Your task to perform on an android device: change notifications settings Image 0: 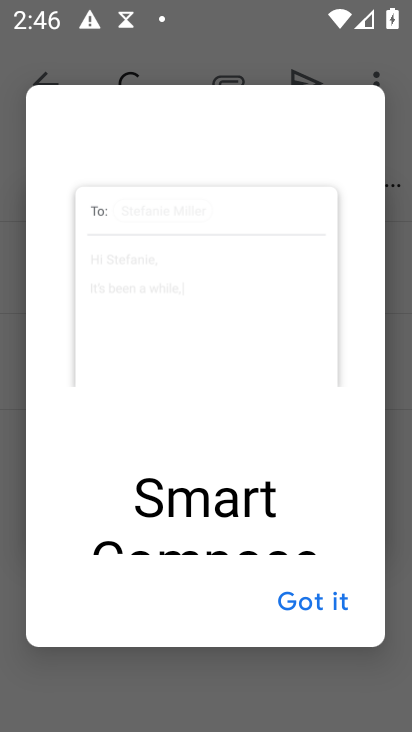
Step 0: press home button
Your task to perform on an android device: change notifications settings Image 1: 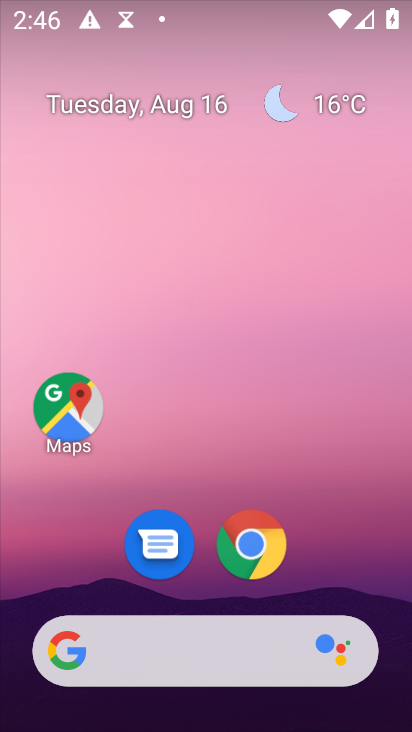
Step 1: drag from (191, 661) to (223, 95)
Your task to perform on an android device: change notifications settings Image 2: 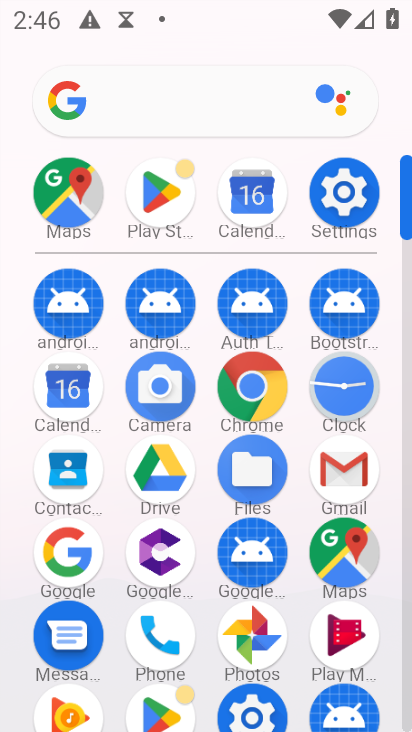
Step 2: click (342, 192)
Your task to perform on an android device: change notifications settings Image 3: 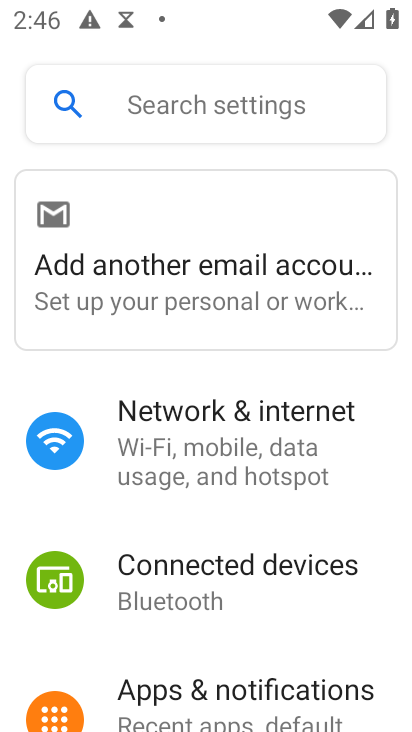
Step 3: drag from (188, 651) to (271, 481)
Your task to perform on an android device: change notifications settings Image 4: 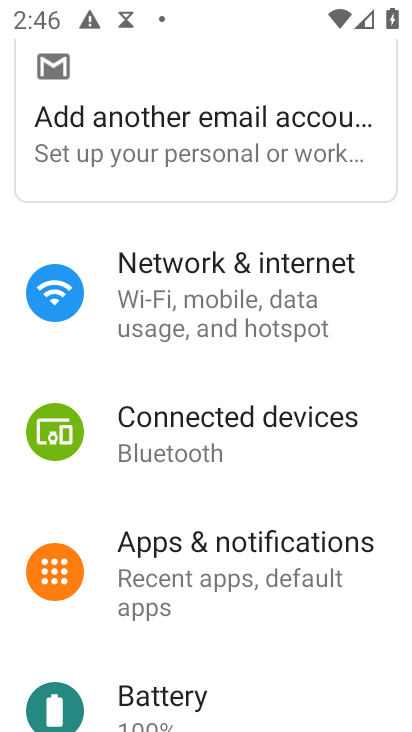
Step 4: click (255, 545)
Your task to perform on an android device: change notifications settings Image 5: 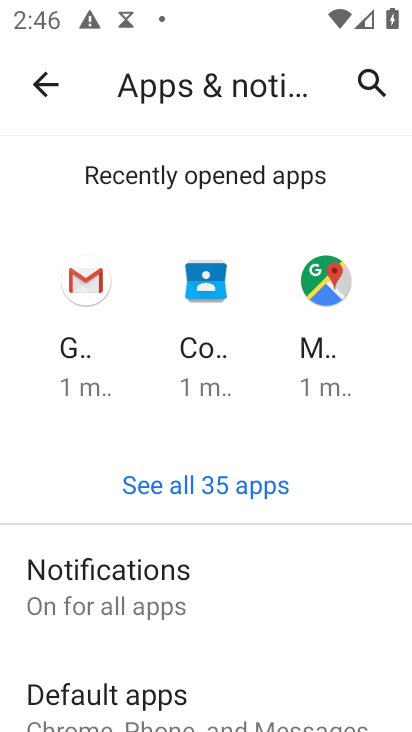
Step 5: click (140, 571)
Your task to perform on an android device: change notifications settings Image 6: 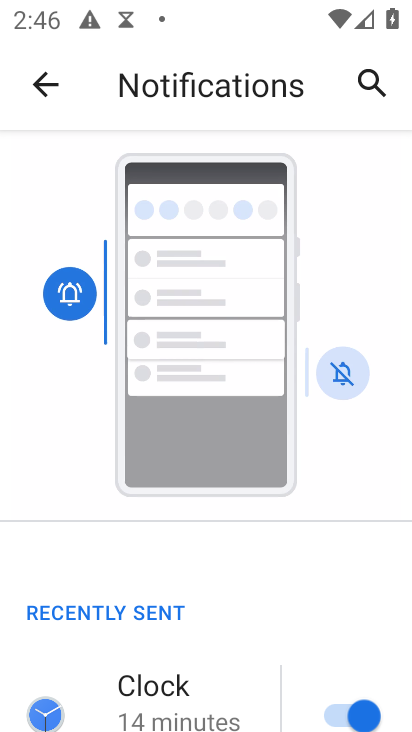
Step 6: drag from (115, 647) to (202, 488)
Your task to perform on an android device: change notifications settings Image 7: 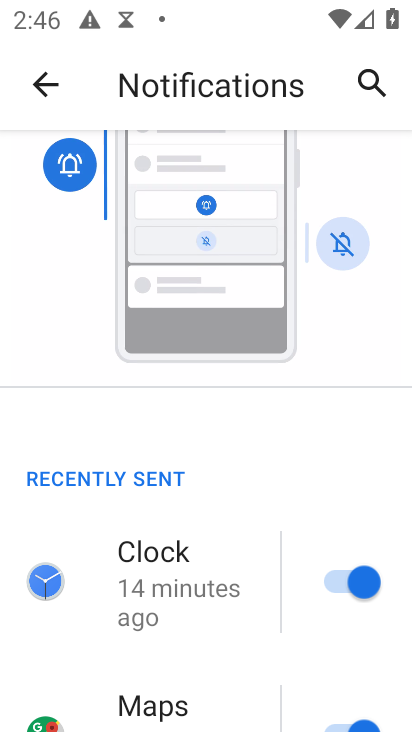
Step 7: drag from (140, 658) to (210, 504)
Your task to perform on an android device: change notifications settings Image 8: 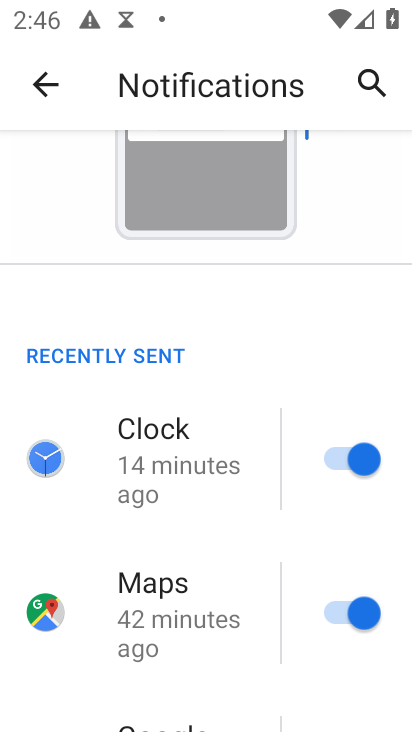
Step 8: drag from (118, 680) to (184, 499)
Your task to perform on an android device: change notifications settings Image 9: 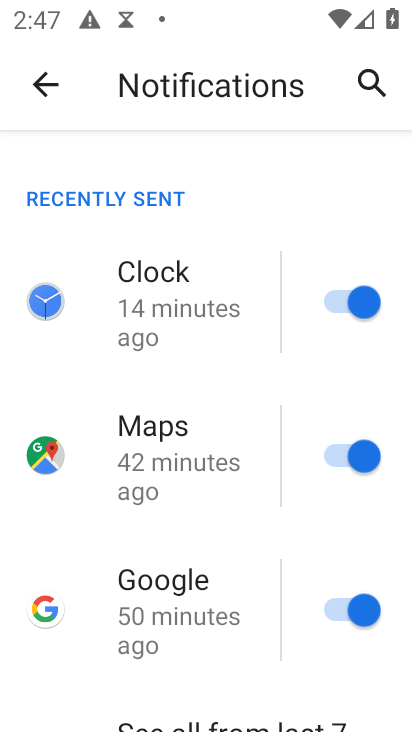
Step 9: drag from (131, 690) to (223, 423)
Your task to perform on an android device: change notifications settings Image 10: 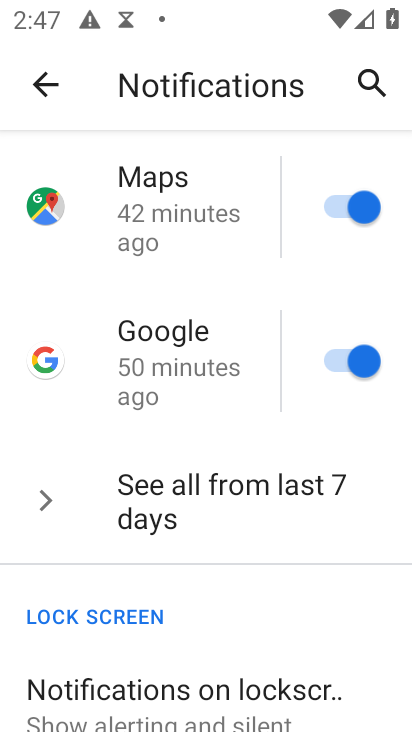
Step 10: drag from (132, 667) to (209, 413)
Your task to perform on an android device: change notifications settings Image 11: 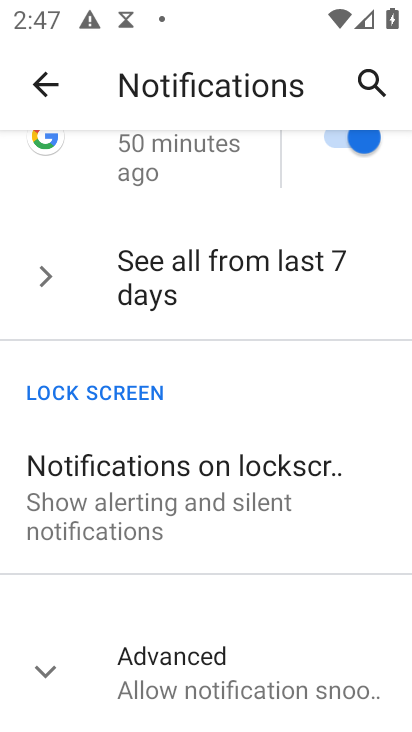
Step 11: click (160, 654)
Your task to perform on an android device: change notifications settings Image 12: 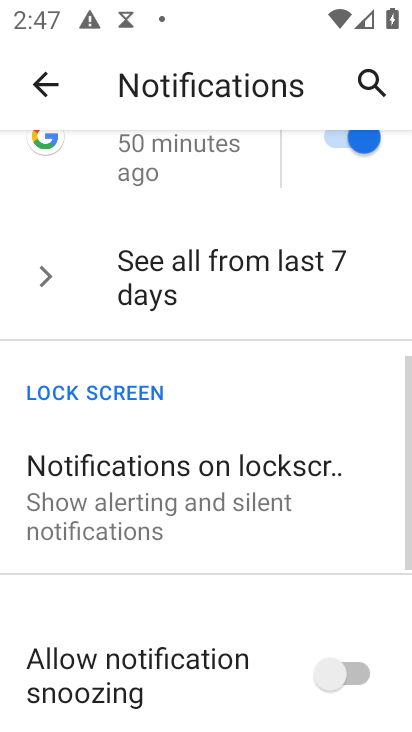
Step 12: drag from (171, 605) to (214, 465)
Your task to perform on an android device: change notifications settings Image 13: 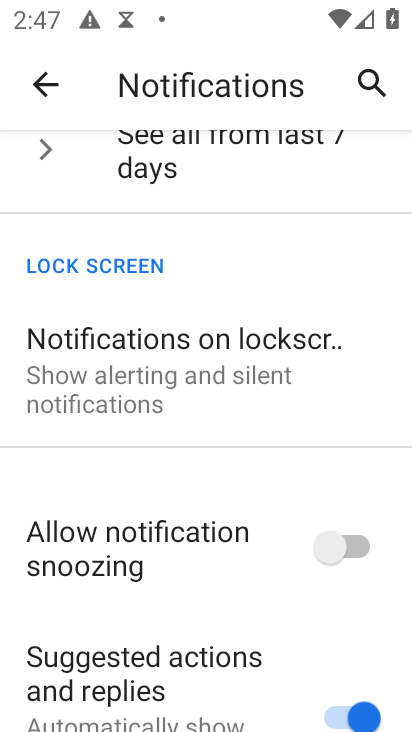
Step 13: drag from (194, 643) to (269, 480)
Your task to perform on an android device: change notifications settings Image 14: 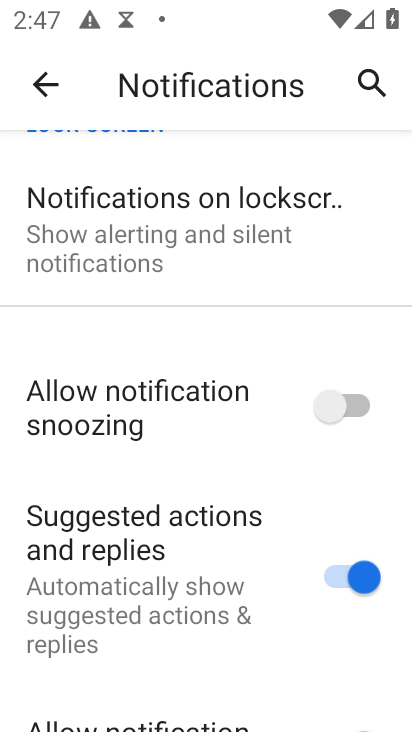
Step 14: drag from (207, 655) to (285, 329)
Your task to perform on an android device: change notifications settings Image 15: 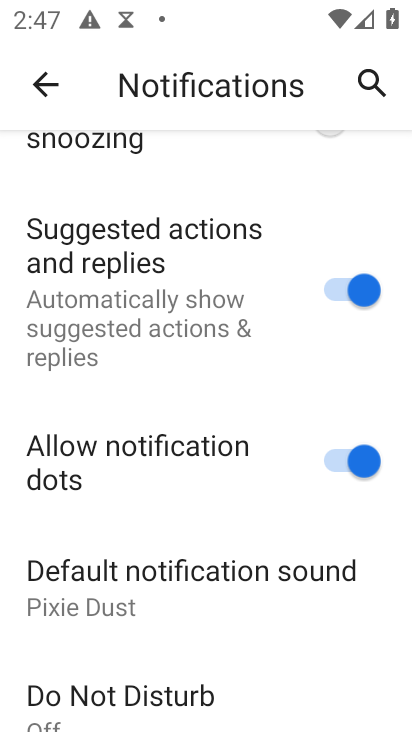
Step 15: click (346, 460)
Your task to perform on an android device: change notifications settings Image 16: 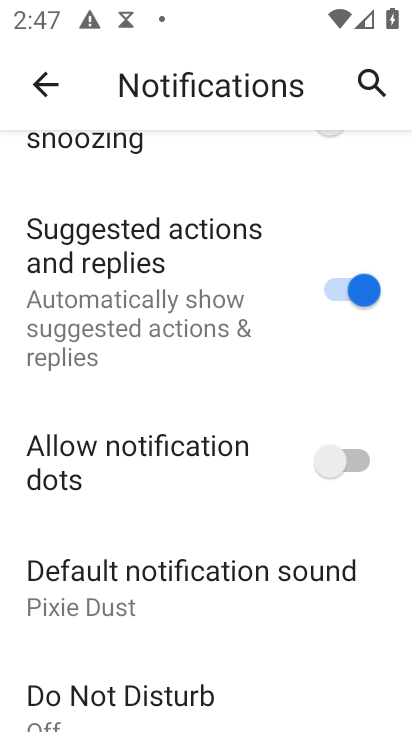
Step 16: task complete